Your task to perform on an android device: change timer sound Image 0: 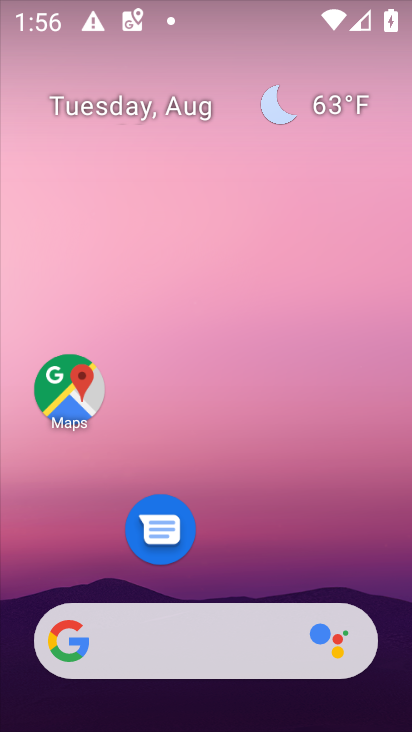
Step 0: drag from (259, 561) to (260, 145)
Your task to perform on an android device: change timer sound Image 1: 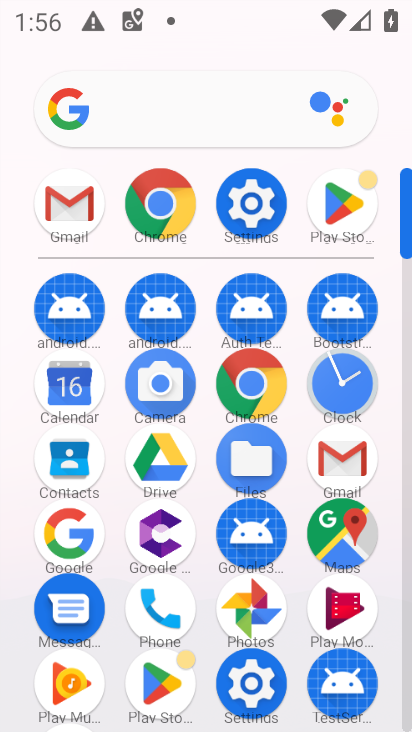
Step 1: click (357, 391)
Your task to perform on an android device: change timer sound Image 2: 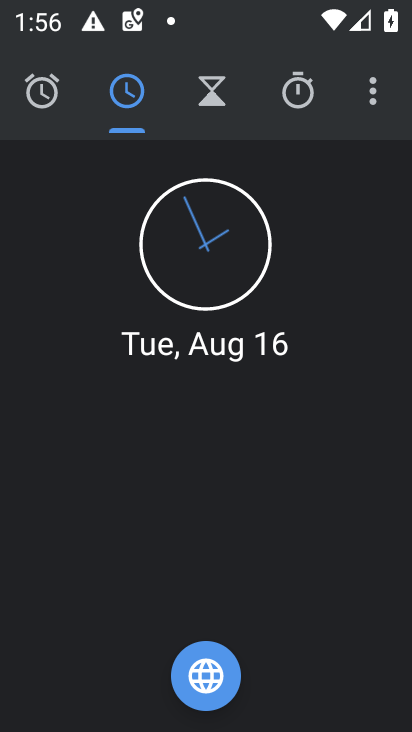
Step 2: click (372, 81)
Your task to perform on an android device: change timer sound Image 3: 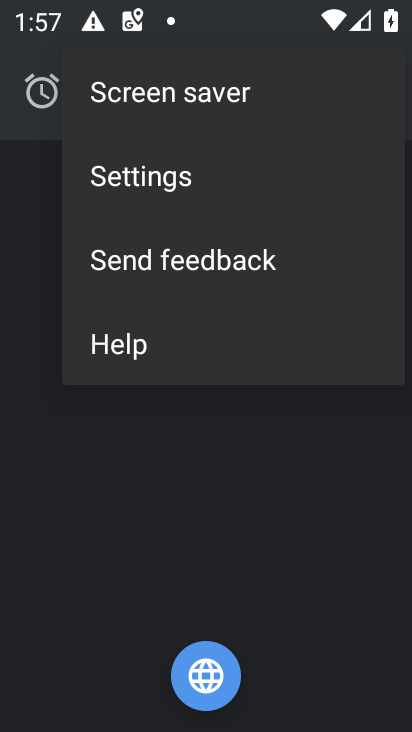
Step 3: click (239, 205)
Your task to perform on an android device: change timer sound Image 4: 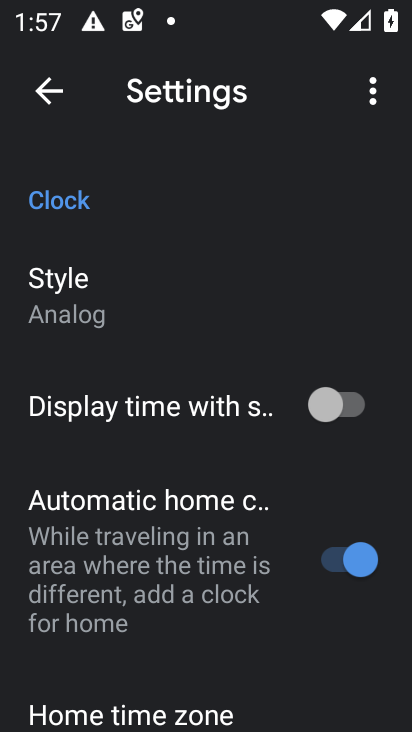
Step 4: drag from (222, 561) to (217, 282)
Your task to perform on an android device: change timer sound Image 5: 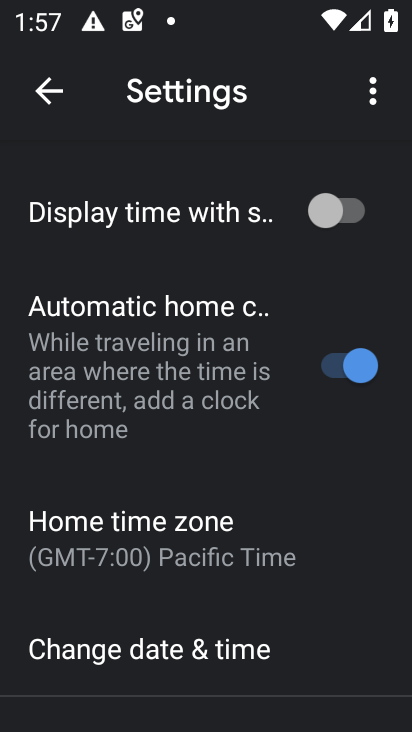
Step 5: drag from (154, 575) to (153, 336)
Your task to perform on an android device: change timer sound Image 6: 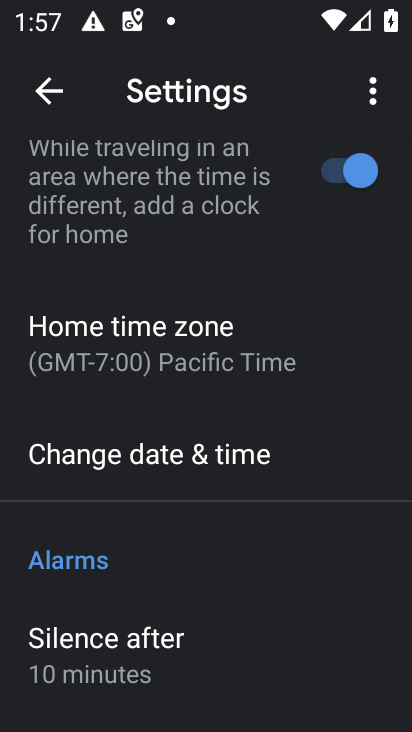
Step 6: drag from (193, 625) to (167, 317)
Your task to perform on an android device: change timer sound Image 7: 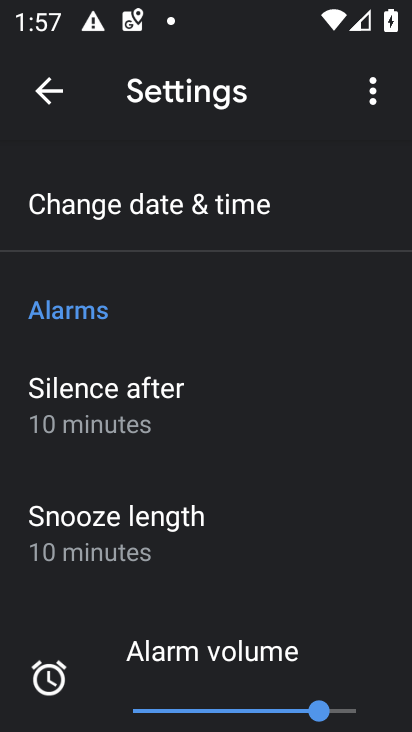
Step 7: drag from (187, 529) to (178, 112)
Your task to perform on an android device: change timer sound Image 8: 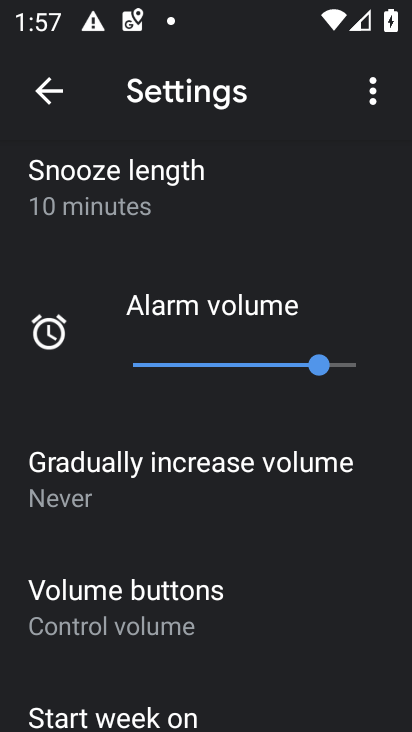
Step 8: drag from (198, 692) to (154, 277)
Your task to perform on an android device: change timer sound Image 9: 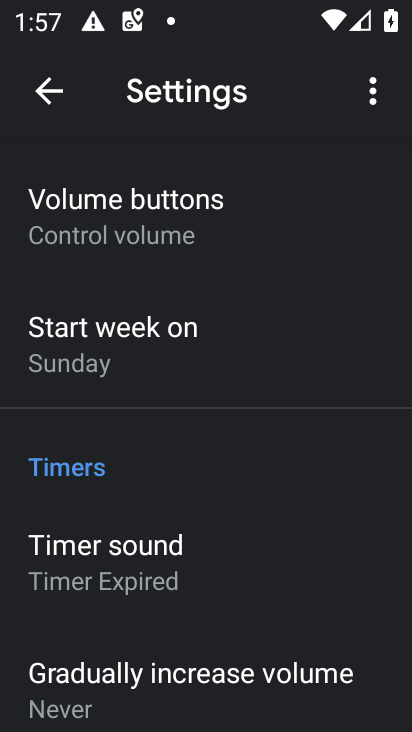
Step 9: click (213, 542)
Your task to perform on an android device: change timer sound Image 10: 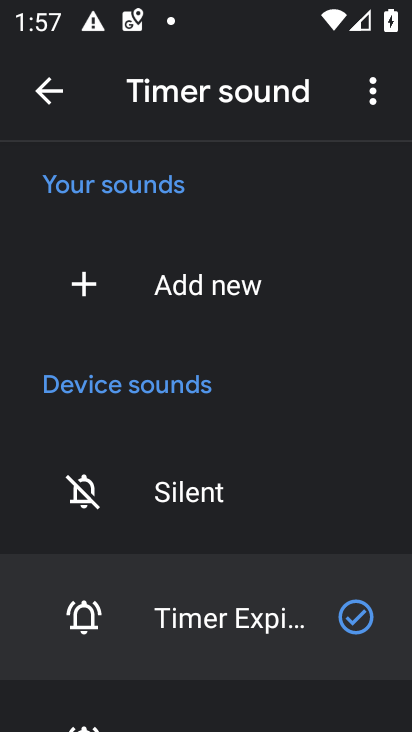
Step 10: click (276, 722)
Your task to perform on an android device: change timer sound Image 11: 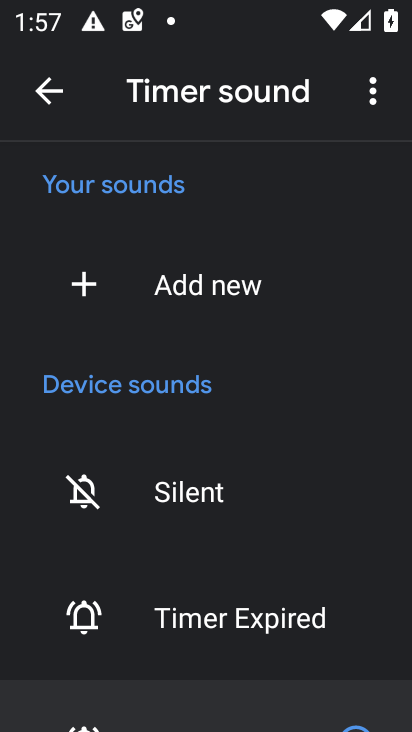
Step 11: task complete